Your task to perform on an android device: turn on priority inbox in the gmail app Image 0: 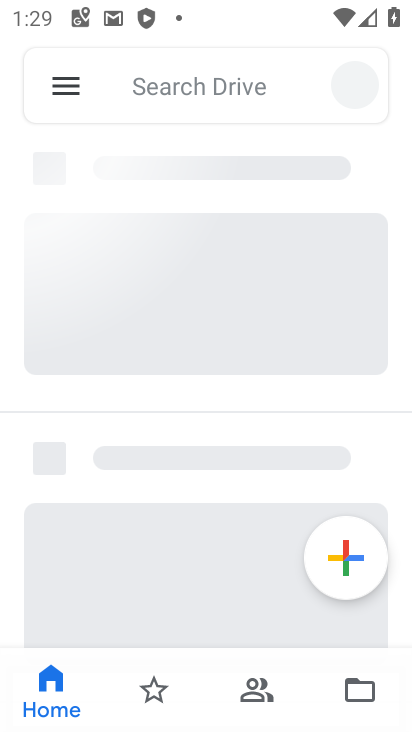
Step 0: drag from (160, 623) to (207, 164)
Your task to perform on an android device: turn on priority inbox in the gmail app Image 1: 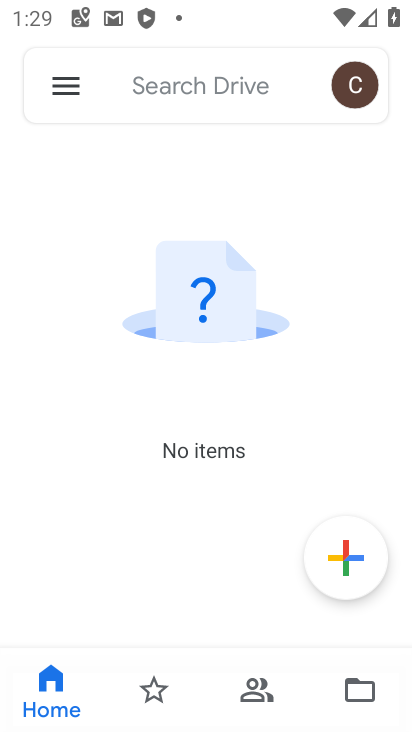
Step 1: press home button
Your task to perform on an android device: turn on priority inbox in the gmail app Image 2: 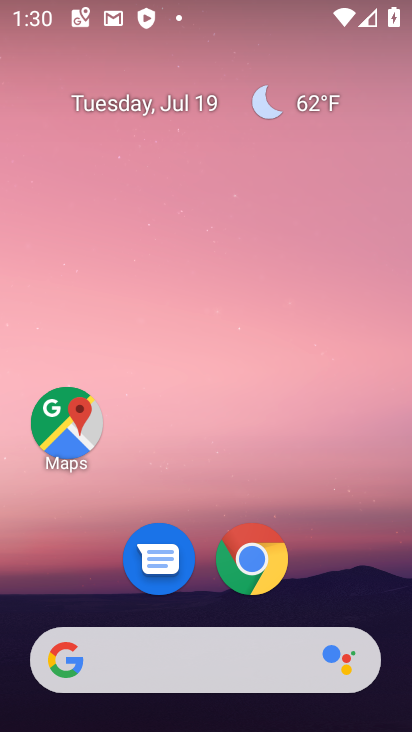
Step 2: drag from (211, 687) to (270, 55)
Your task to perform on an android device: turn on priority inbox in the gmail app Image 3: 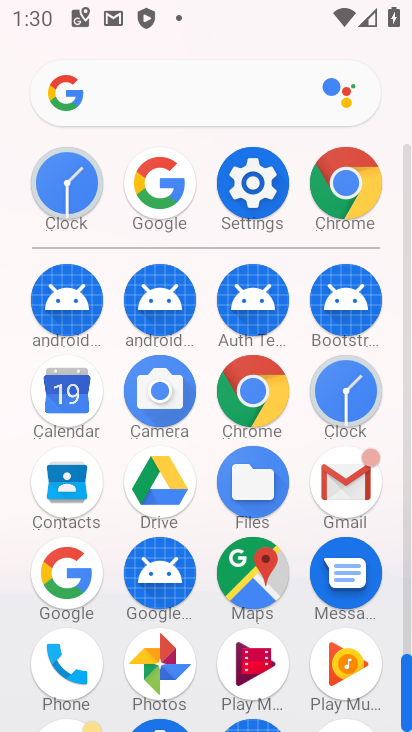
Step 3: click (351, 479)
Your task to perform on an android device: turn on priority inbox in the gmail app Image 4: 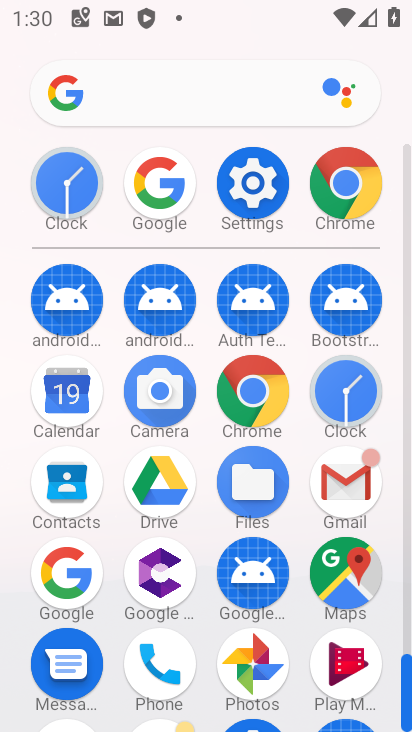
Step 4: click (353, 494)
Your task to perform on an android device: turn on priority inbox in the gmail app Image 5: 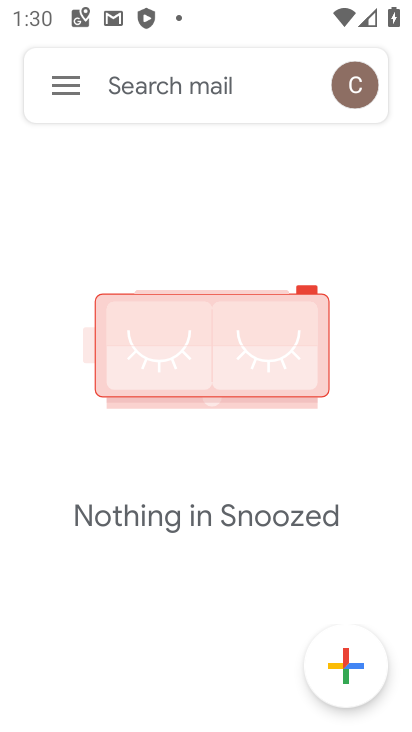
Step 5: click (57, 80)
Your task to perform on an android device: turn on priority inbox in the gmail app Image 6: 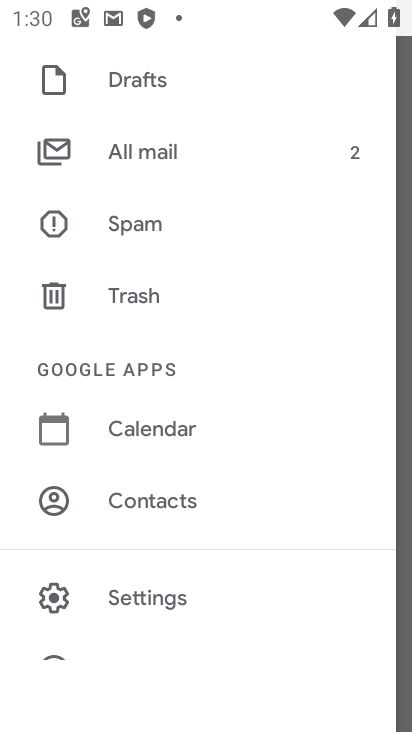
Step 6: click (171, 593)
Your task to perform on an android device: turn on priority inbox in the gmail app Image 7: 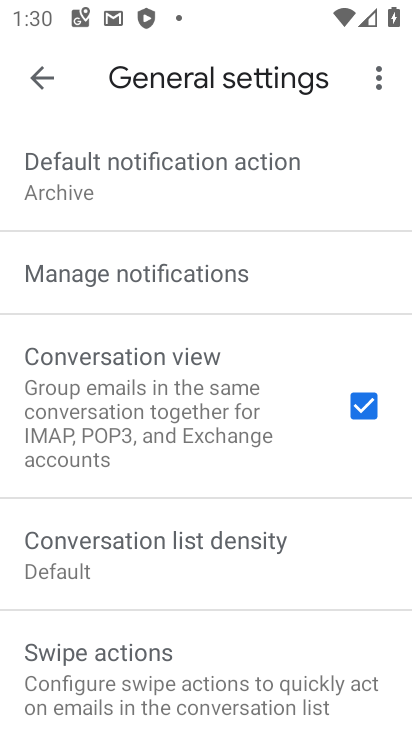
Step 7: click (30, 91)
Your task to perform on an android device: turn on priority inbox in the gmail app Image 8: 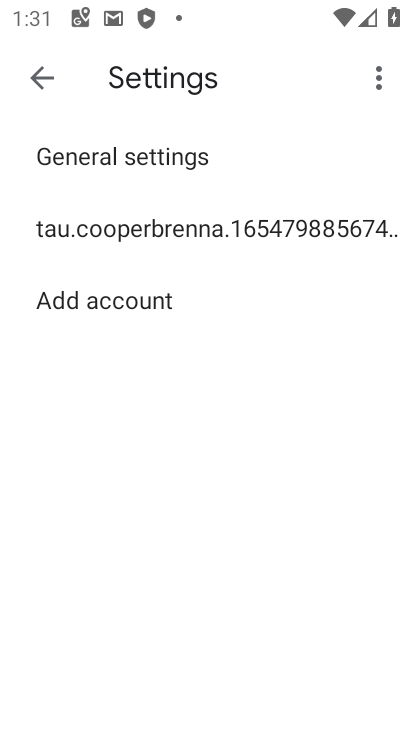
Step 8: click (143, 235)
Your task to perform on an android device: turn on priority inbox in the gmail app Image 9: 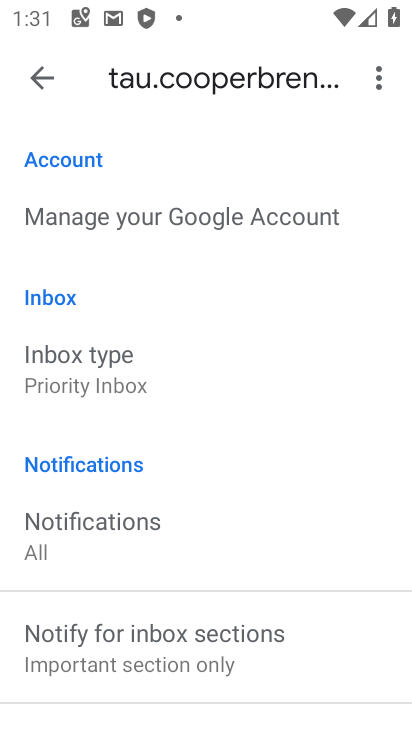
Step 9: click (129, 378)
Your task to perform on an android device: turn on priority inbox in the gmail app Image 10: 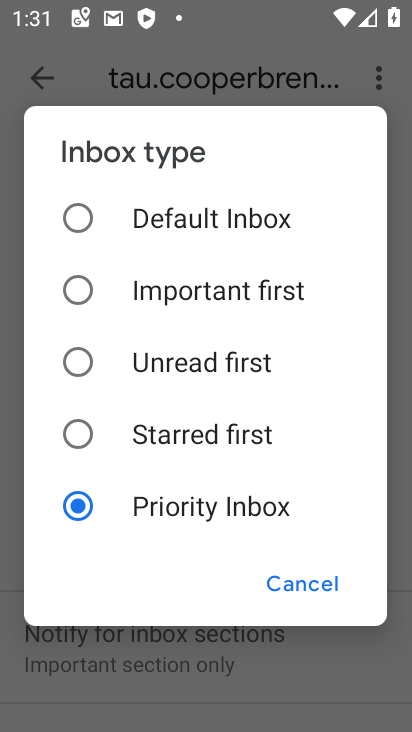
Step 10: task complete